Your task to perform on an android device: Go to eBay Image 0: 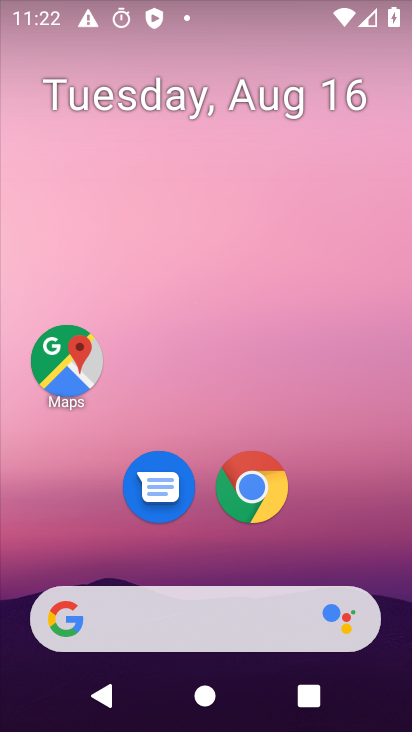
Step 0: click (272, 495)
Your task to perform on an android device: Go to eBay Image 1: 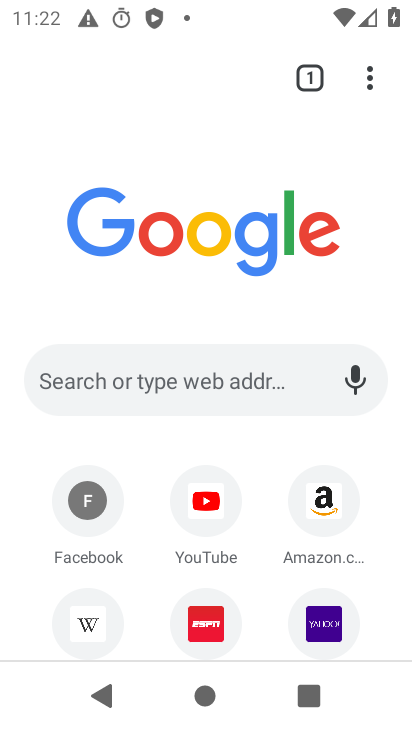
Step 1: click (198, 385)
Your task to perform on an android device: Go to eBay Image 2: 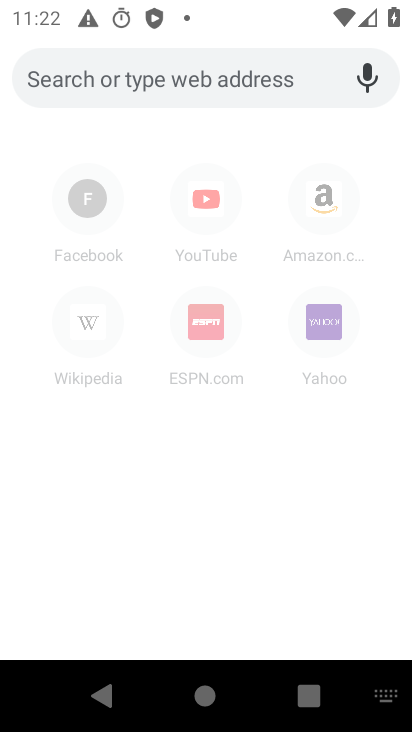
Step 2: type "ebay.com"
Your task to perform on an android device: Go to eBay Image 3: 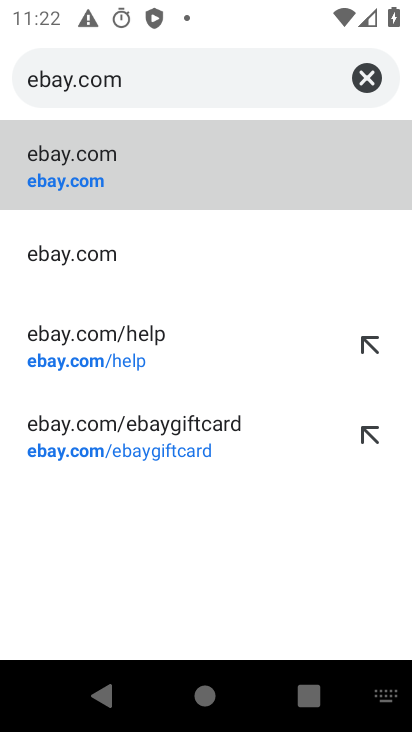
Step 3: click (165, 164)
Your task to perform on an android device: Go to eBay Image 4: 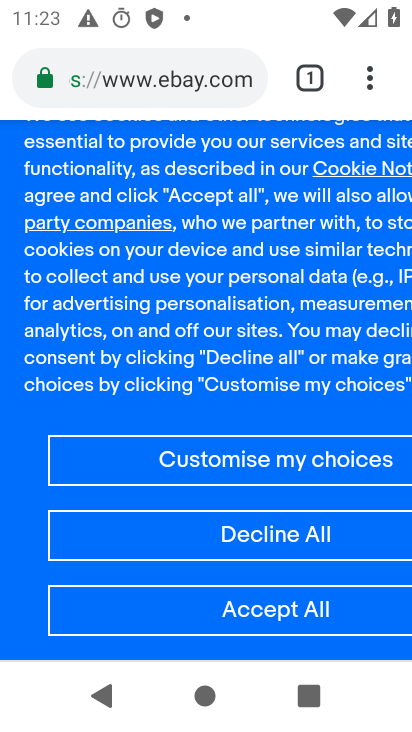
Step 4: click (273, 615)
Your task to perform on an android device: Go to eBay Image 5: 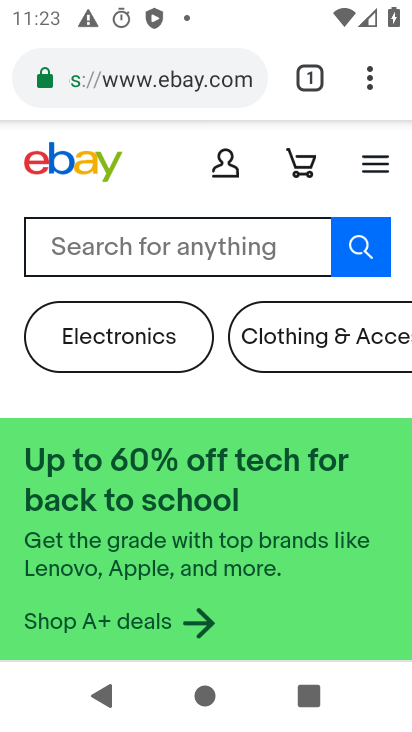
Step 5: task complete